Your task to perform on an android device: all mails in gmail Image 0: 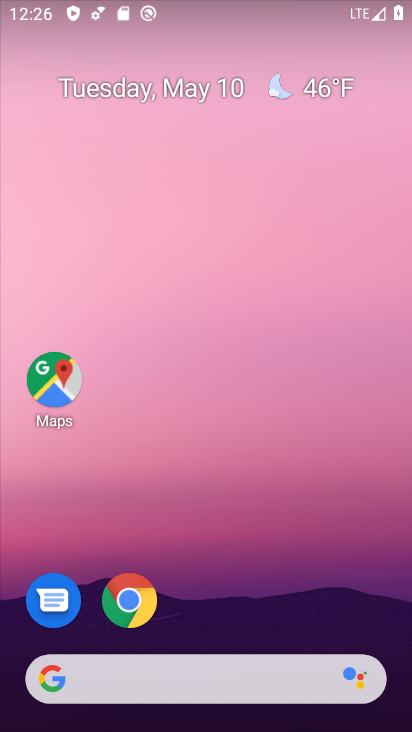
Step 0: drag from (208, 653) to (353, 190)
Your task to perform on an android device: all mails in gmail Image 1: 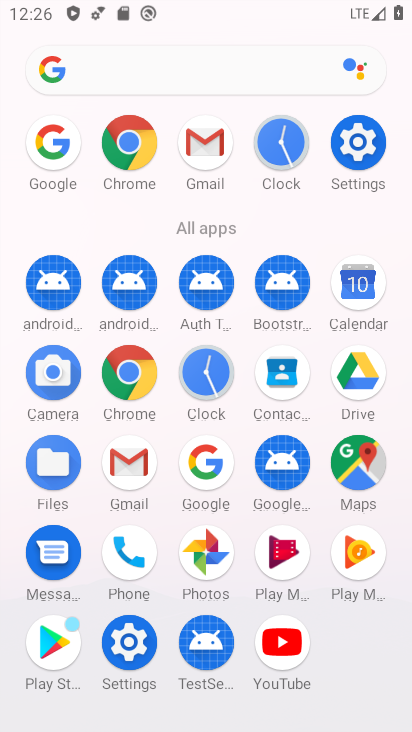
Step 1: click (149, 466)
Your task to perform on an android device: all mails in gmail Image 2: 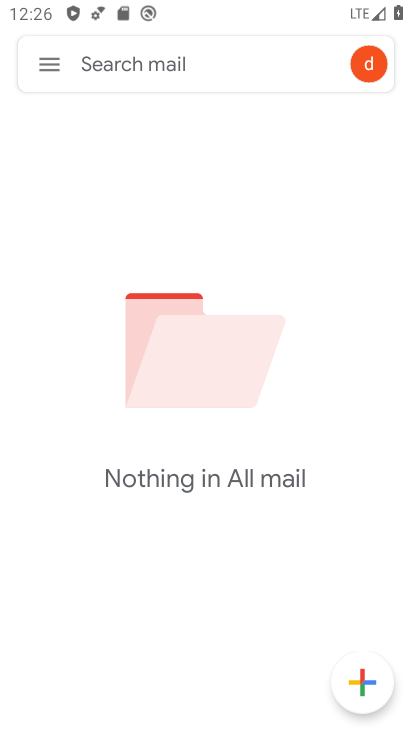
Step 2: click (49, 59)
Your task to perform on an android device: all mails in gmail Image 3: 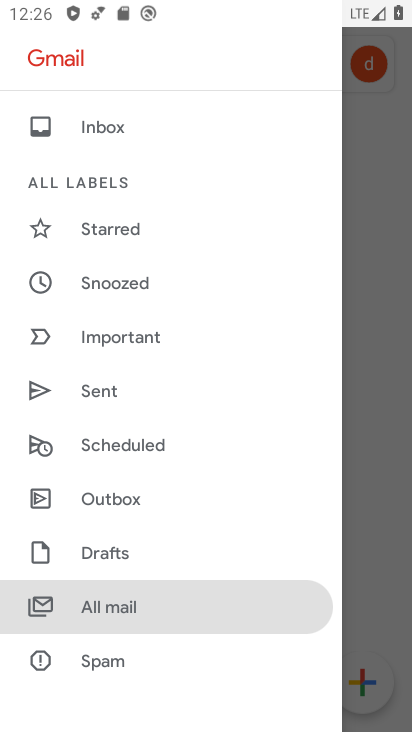
Step 3: click (133, 601)
Your task to perform on an android device: all mails in gmail Image 4: 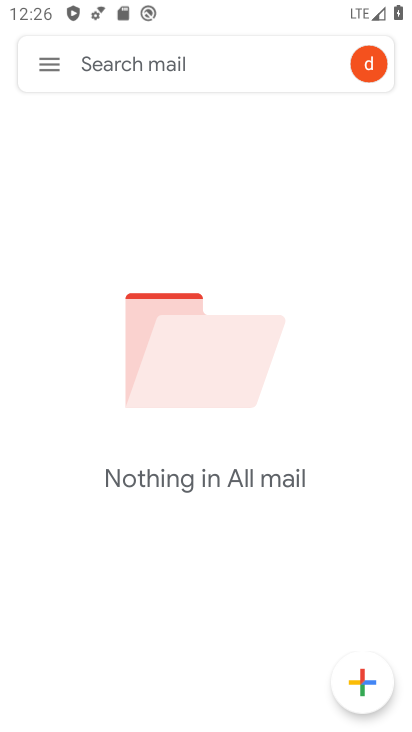
Step 4: task complete